Your task to perform on an android device: Go to ESPN.com Image 0: 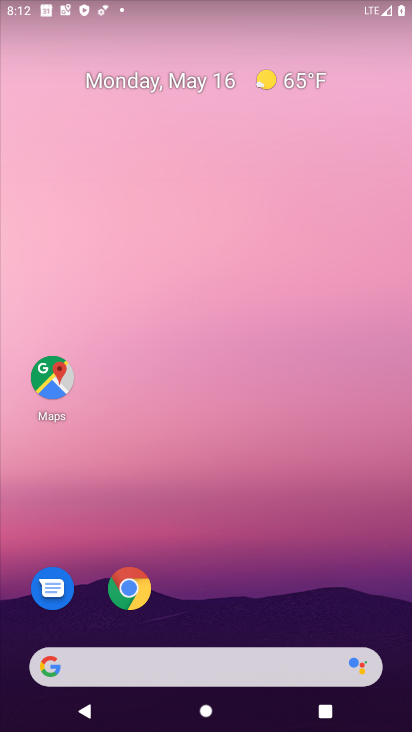
Step 0: drag from (258, 552) to (205, 35)
Your task to perform on an android device: Go to ESPN.com Image 1: 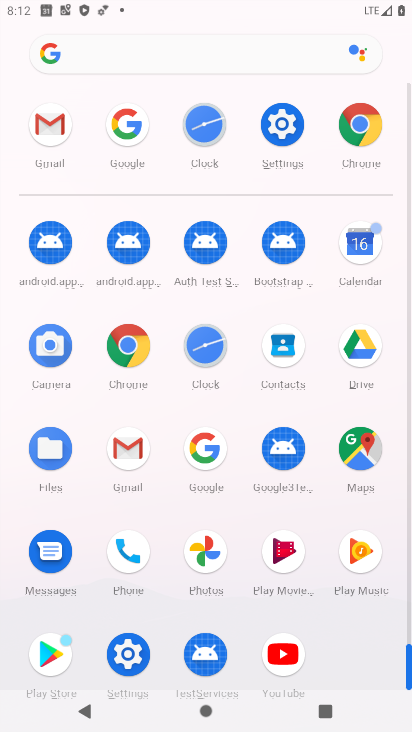
Step 1: drag from (8, 503) to (18, 229)
Your task to perform on an android device: Go to ESPN.com Image 2: 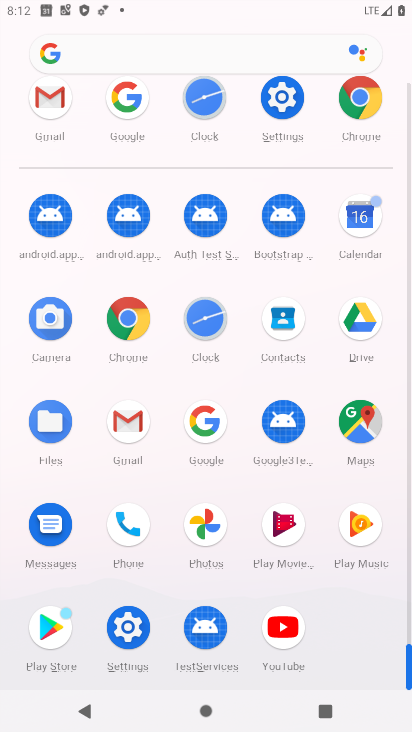
Step 2: click (130, 315)
Your task to perform on an android device: Go to ESPN.com Image 3: 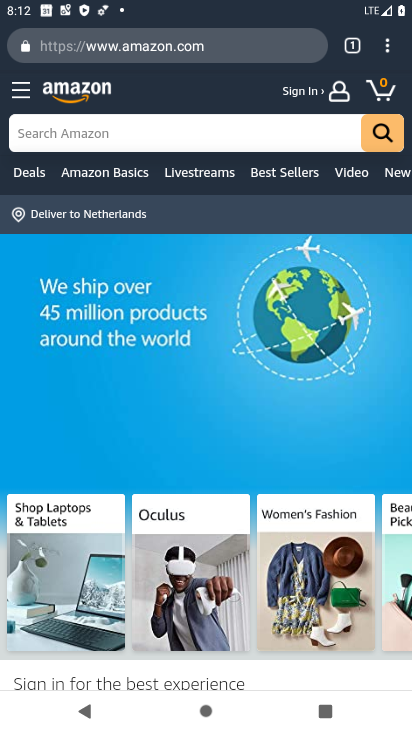
Step 3: click (197, 46)
Your task to perform on an android device: Go to ESPN.com Image 4: 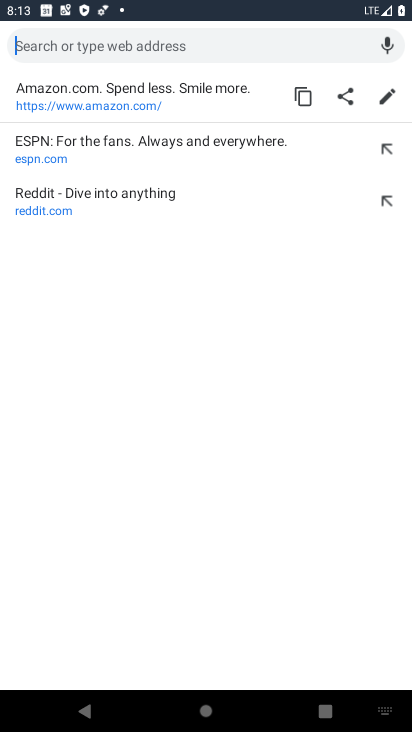
Step 4: type "ESPN.com"
Your task to perform on an android device: Go to ESPN.com Image 5: 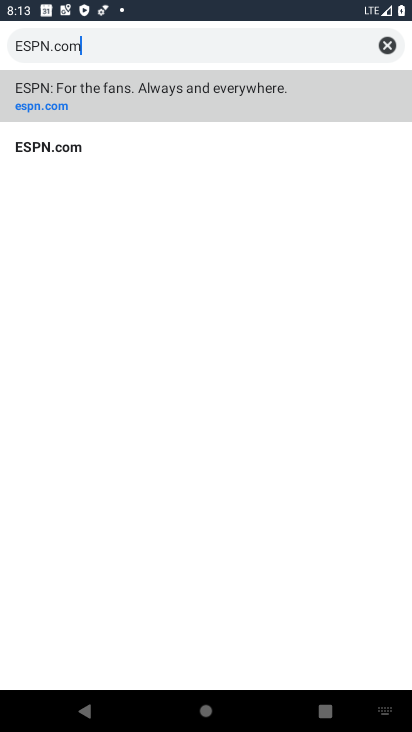
Step 5: type ""
Your task to perform on an android device: Go to ESPN.com Image 6: 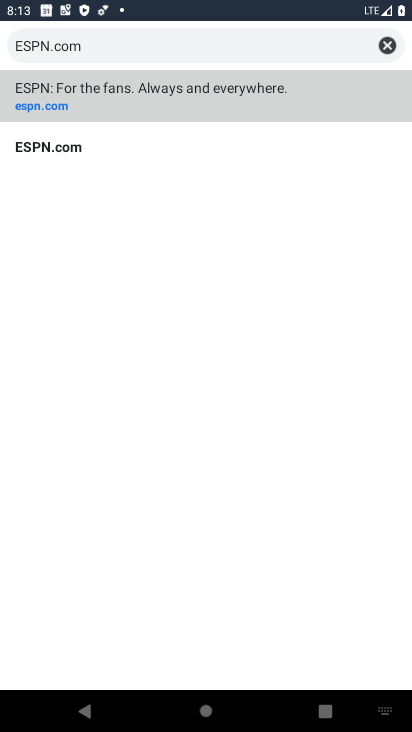
Step 6: click (126, 86)
Your task to perform on an android device: Go to ESPN.com Image 7: 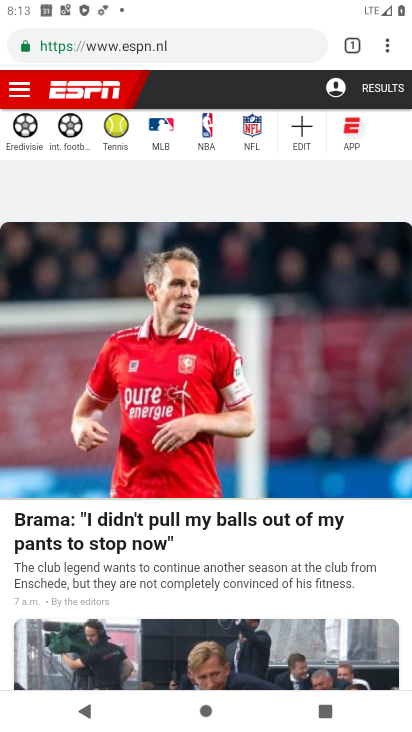
Step 7: task complete